Your task to perform on an android device: read, delete, or share a saved page in the chrome app Image 0: 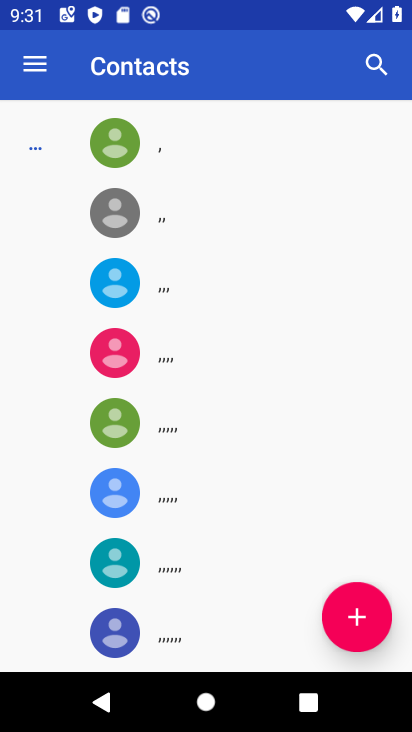
Step 0: press home button
Your task to perform on an android device: read, delete, or share a saved page in the chrome app Image 1: 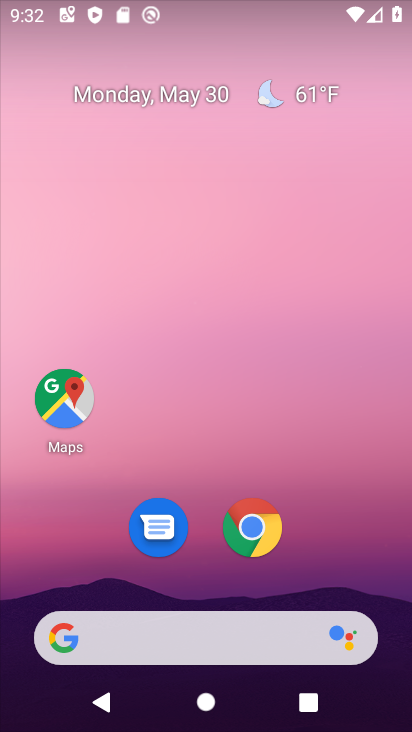
Step 1: click (248, 533)
Your task to perform on an android device: read, delete, or share a saved page in the chrome app Image 2: 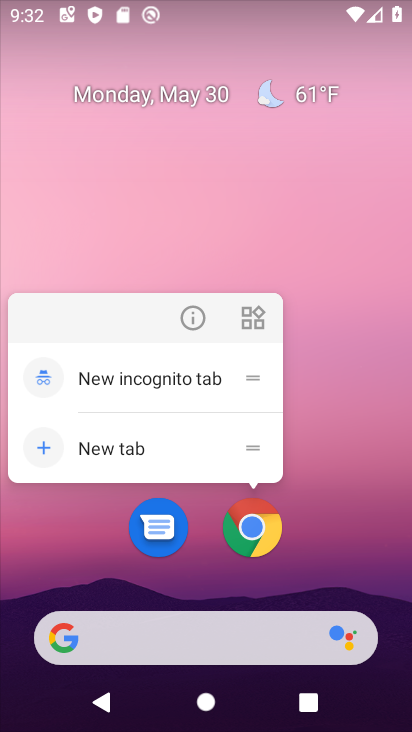
Step 2: click (248, 533)
Your task to perform on an android device: read, delete, or share a saved page in the chrome app Image 3: 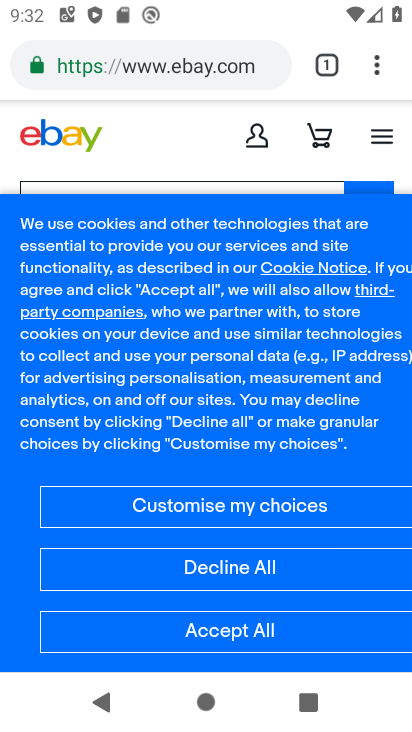
Step 3: click (381, 55)
Your task to perform on an android device: read, delete, or share a saved page in the chrome app Image 4: 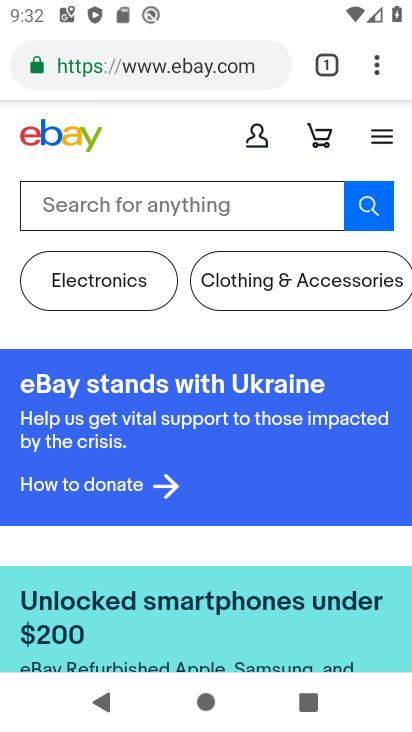
Step 4: click (377, 59)
Your task to perform on an android device: read, delete, or share a saved page in the chrome app Image 5: 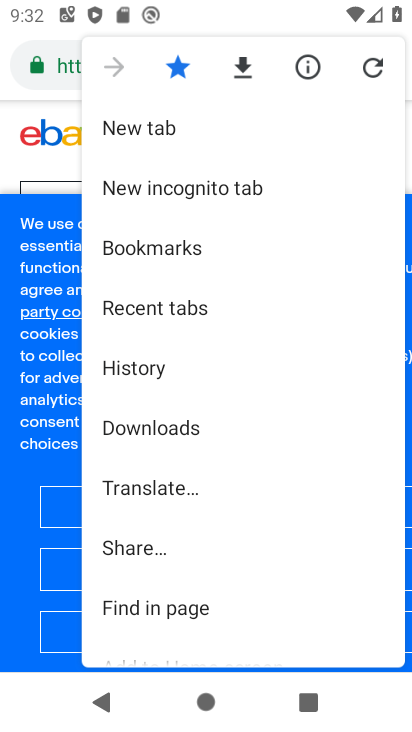
Step 5: click (170, 430)
Your task to perform on an android device: read, delete, or share a saved page in the chrome app Image 6: 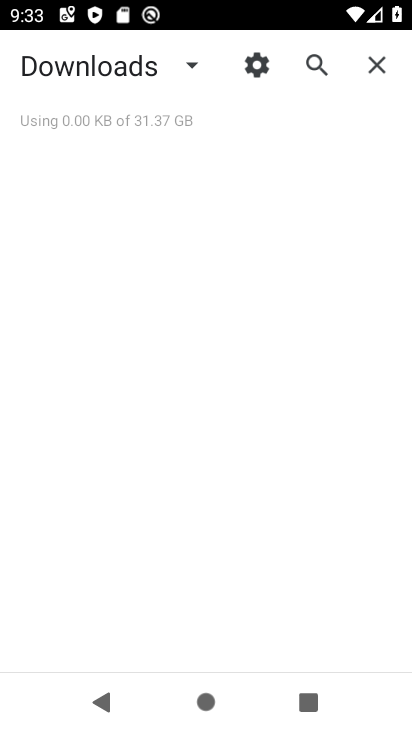
Step 6: click (183, 66)
Your task to perform on an android device: read, delete, or share a saved page in the chrome app Image 7: 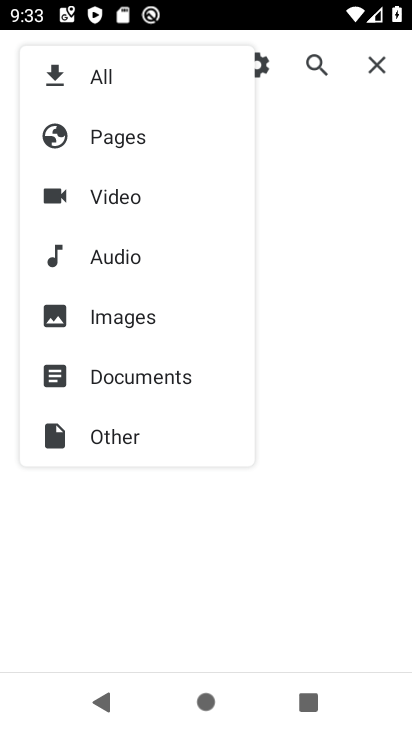
Step 7: click (121, 134)
Your task to perform on an android device: read, delete, or share a saved page in the chrome app Image 8: 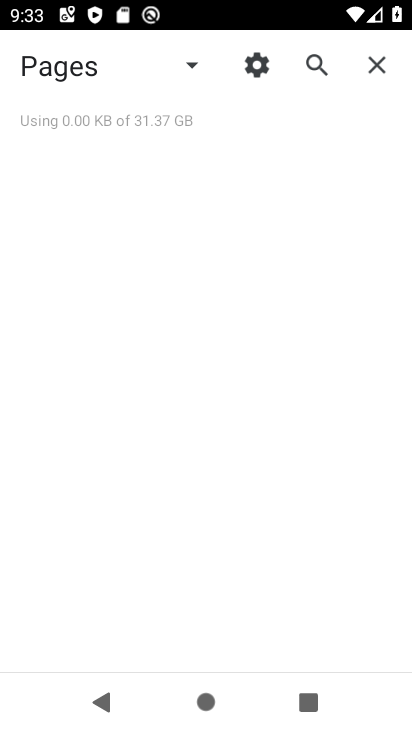
Step 8: task complete